Your task to perform on an android device: turn pop-ups on in chrome Image 0: 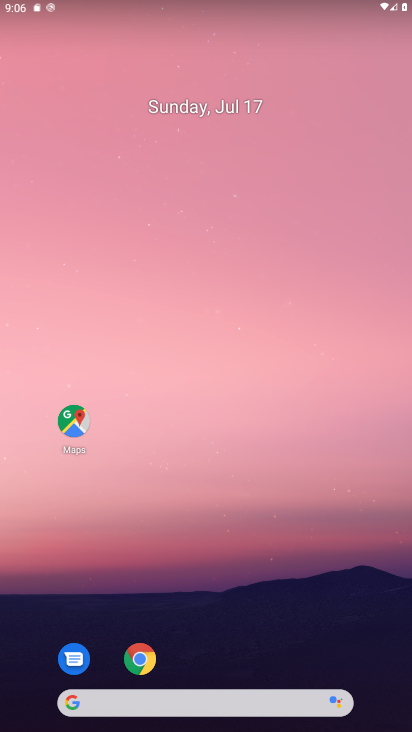
Step 0: click (136, 658)
Your task to perform on an android device: turn pop-ups on in chrome Image 1: 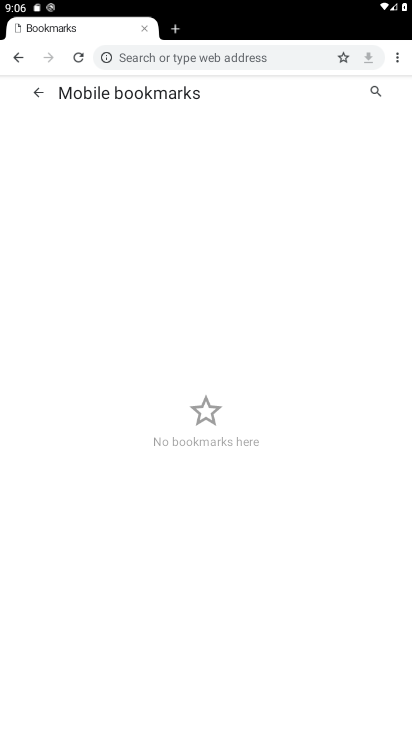
Step 1: drag from (398, 61) to (301, 261)
Your task to perform on an android device: turn pop-ups on in chrome Image 2: 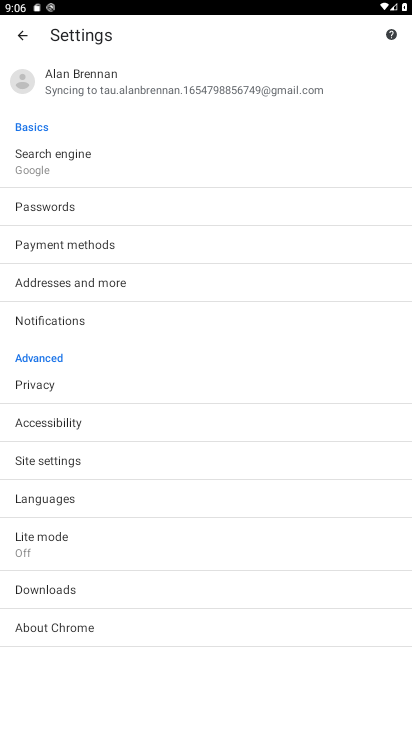
Step 2: click (106, 464)
Your task to perform on an android device: turn pop-ups on in chrome Image 3: 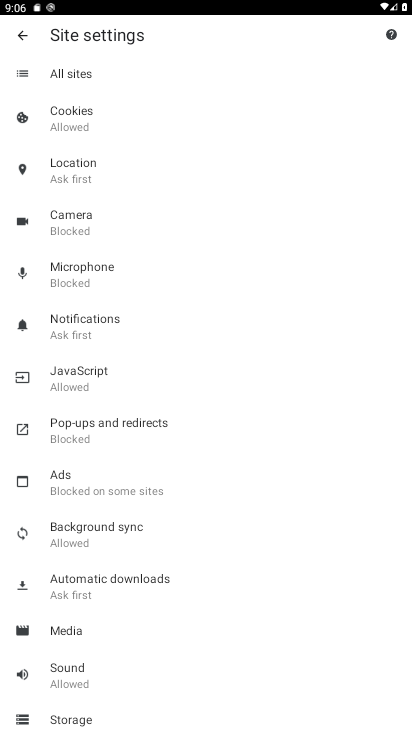
Step 3: click (111, 434)
Your task to perform on an android device: turn pop-ups on in chrome Image 4: 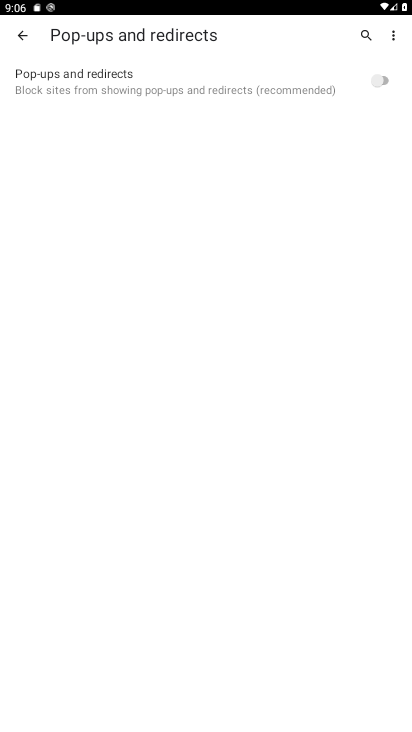
Step 4: click (374, 83)
Your task to perform on an android device: turn pop-ups on in chrome Image 5: 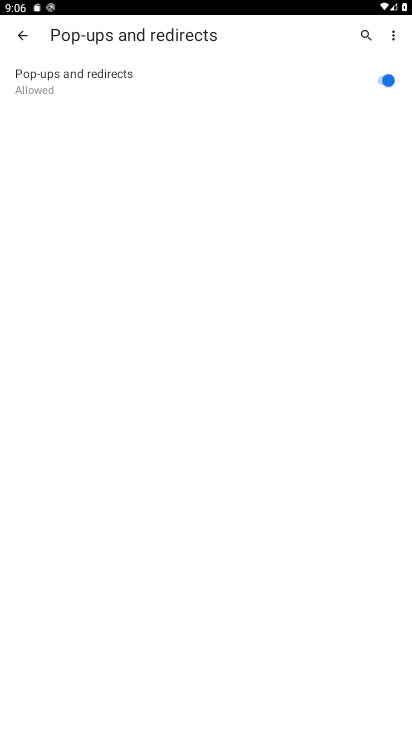
Step 5: task complete